Your task to perform on an android device: Search for "jbl flip 4" on ebay, select the first entry, and add it to the cart. Image 0: 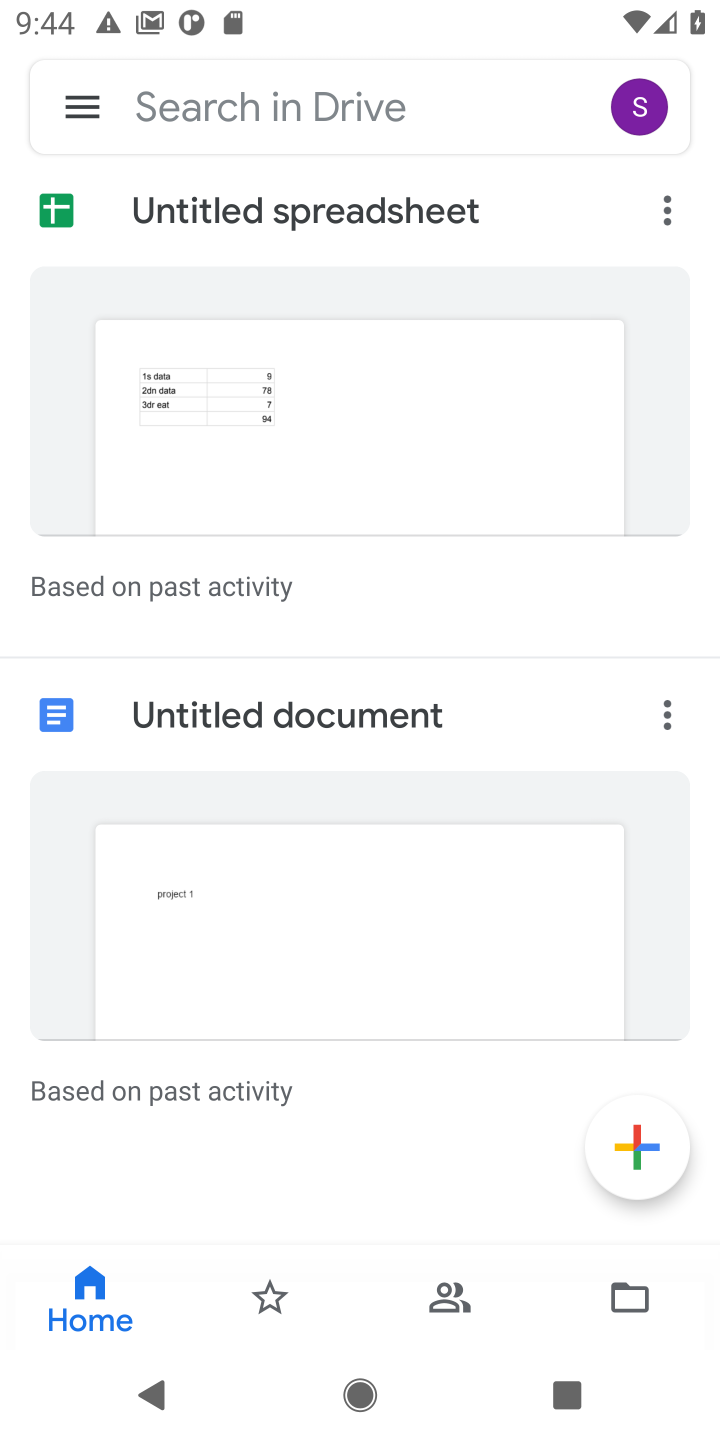
Step 0: press home button
Your task to perform on an android device: Search for "jbl flip 4" on ebay, select the first entry, and add it to the cart. Image 1: 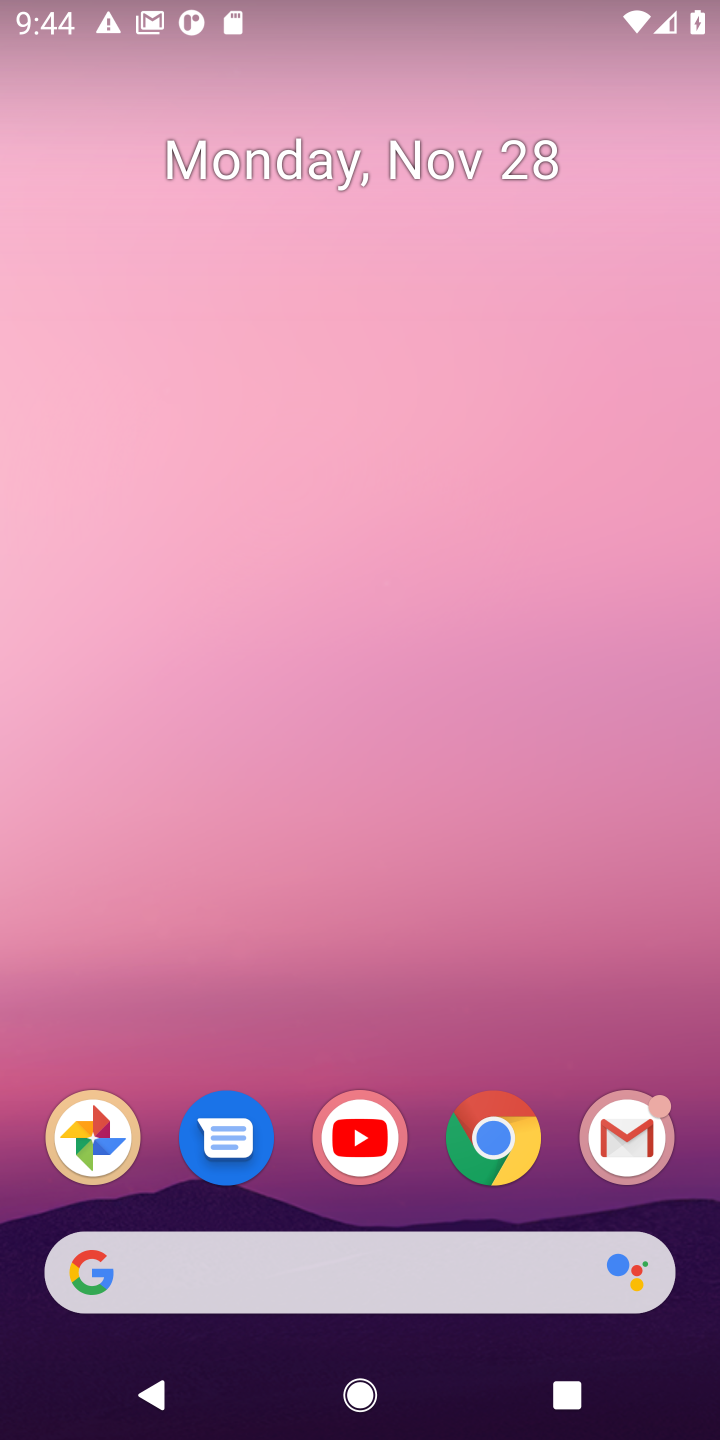
Step 1: click (492, 1140)
Your task to perform on an android device: Search for "jbl flip 4" on ebay, select the first entry, and add it to the cart. Image 2: 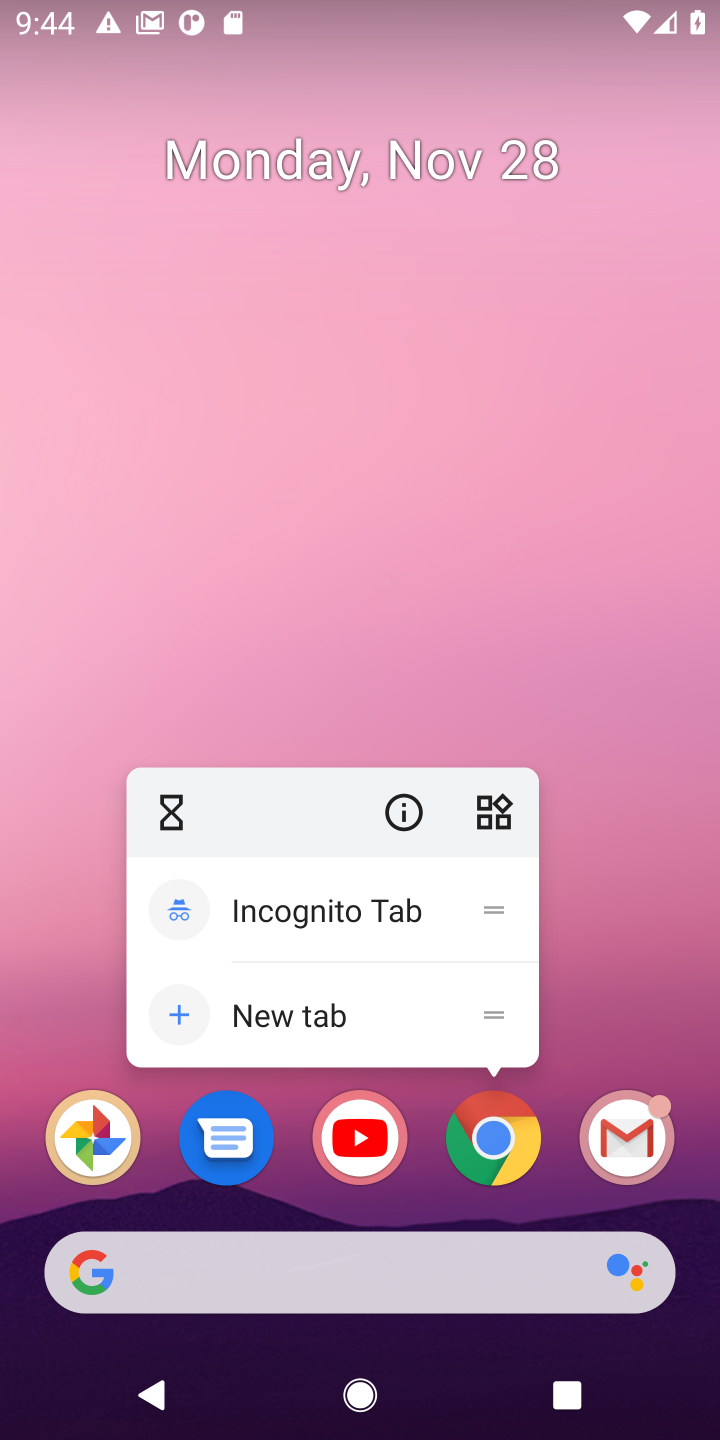
Step 2: click (492, 1140)
Your task to perform on an android device: Search for "jbl flip 4" on ebay, select the first entry, and add it to the cart. Image 3: 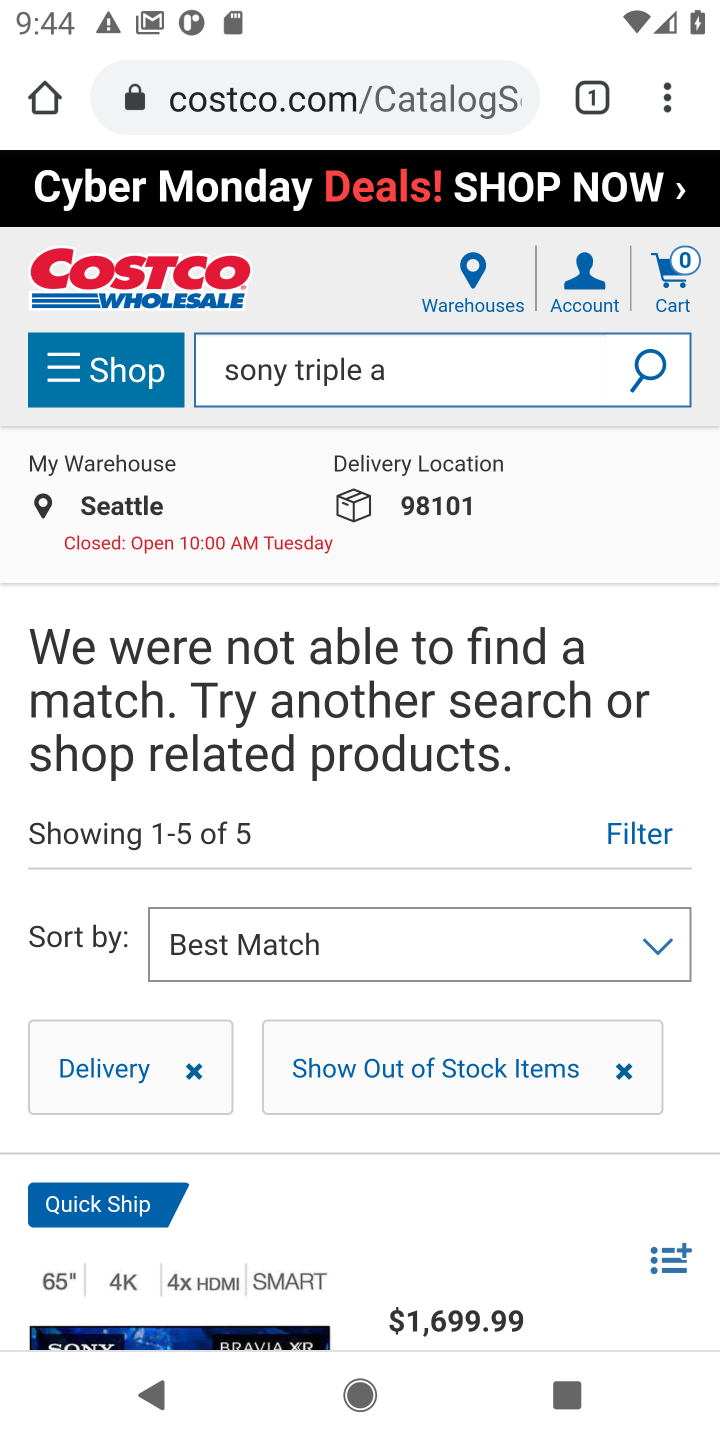
Step 3: click (276, 109)
Your task to perform on an android device: Search for "jbl flip 4" on ebay, select the first entry, and add it to the cart. Image 4: 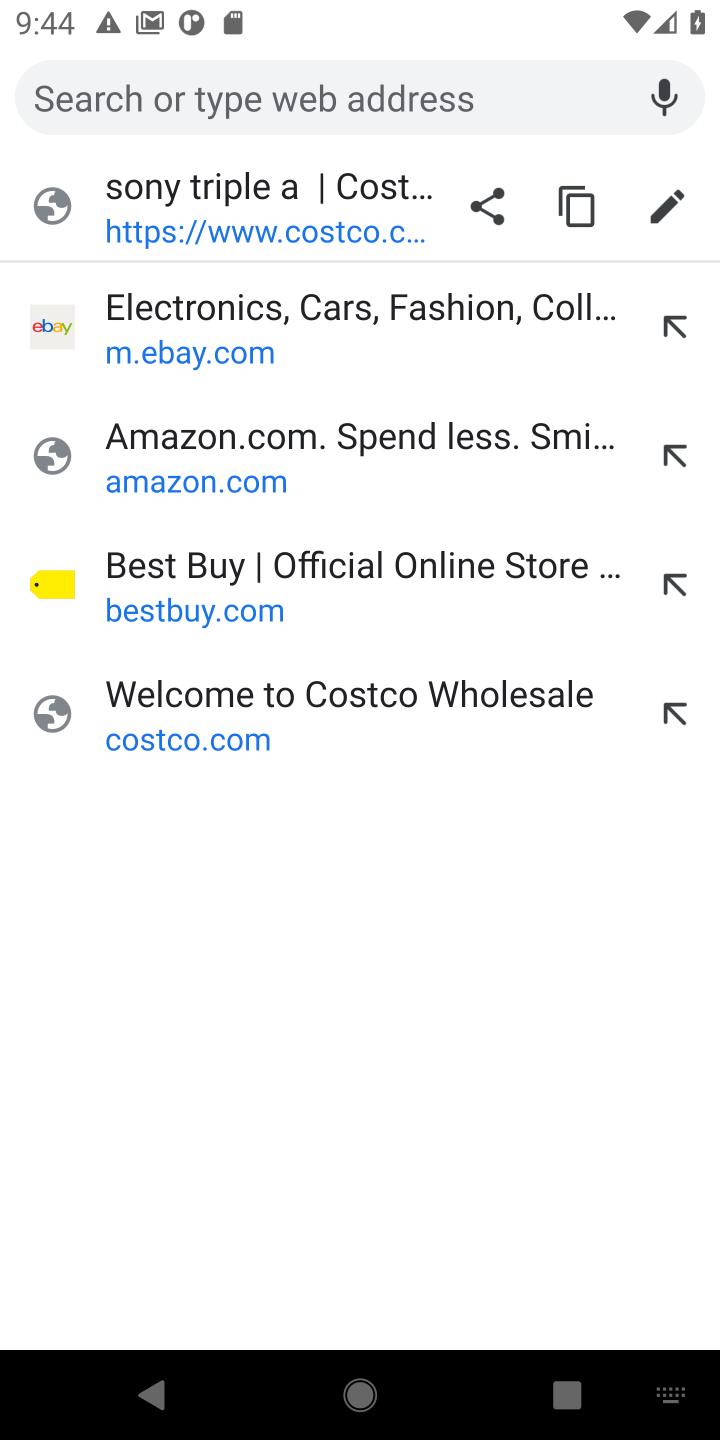
Step 4: click (177, 342)
Your task to perform on an android device: Search for "jbl flip 4" on ebay, select the first entry, and add it to the cart. Image 5: 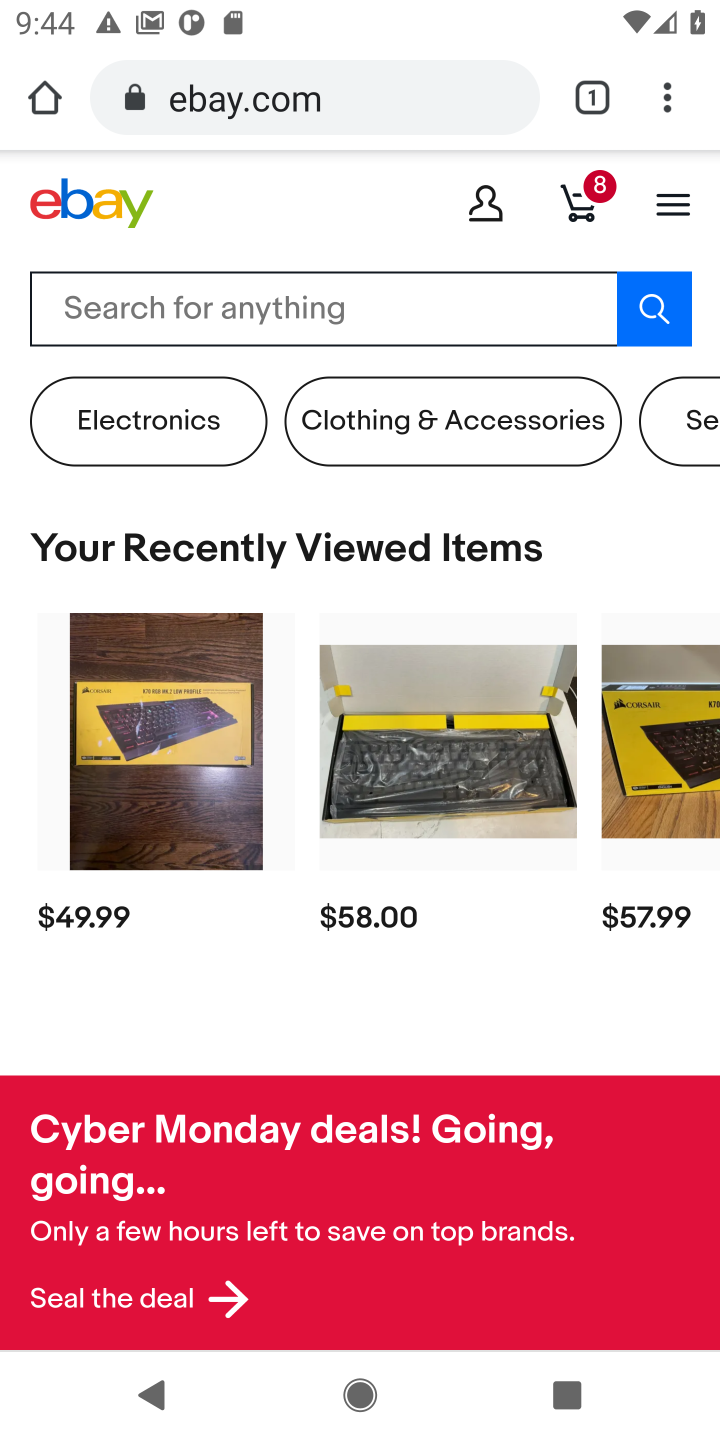
Step 5: click (171, 316)
Your task to perform on an android device: Search for "jbl flip 4" on ebay, select the first entry, and add it to the cart. Image 6: 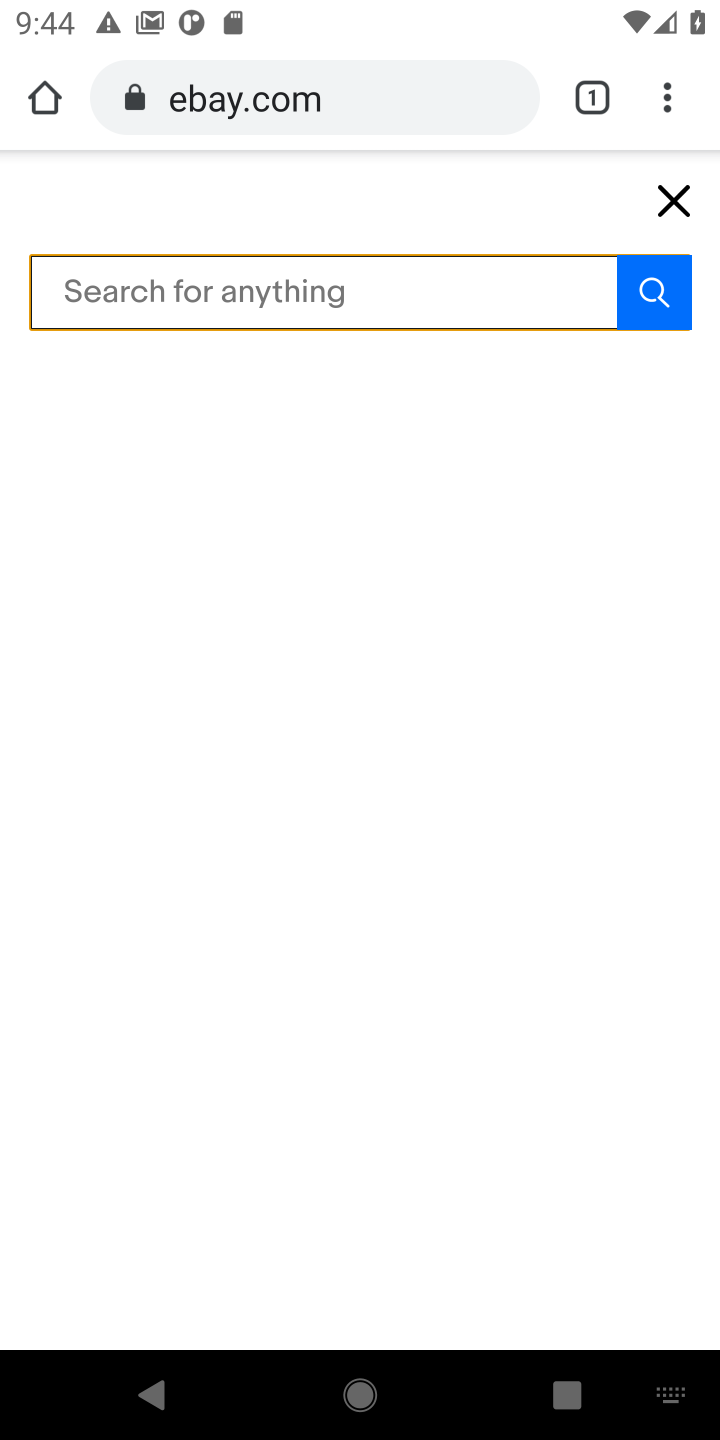
Step 6: type "jbl flip 4"
Your task to perform on an android device: Search for "jbl flip 4" on ebay, select the first entry, and add it to the cart. Image 7: 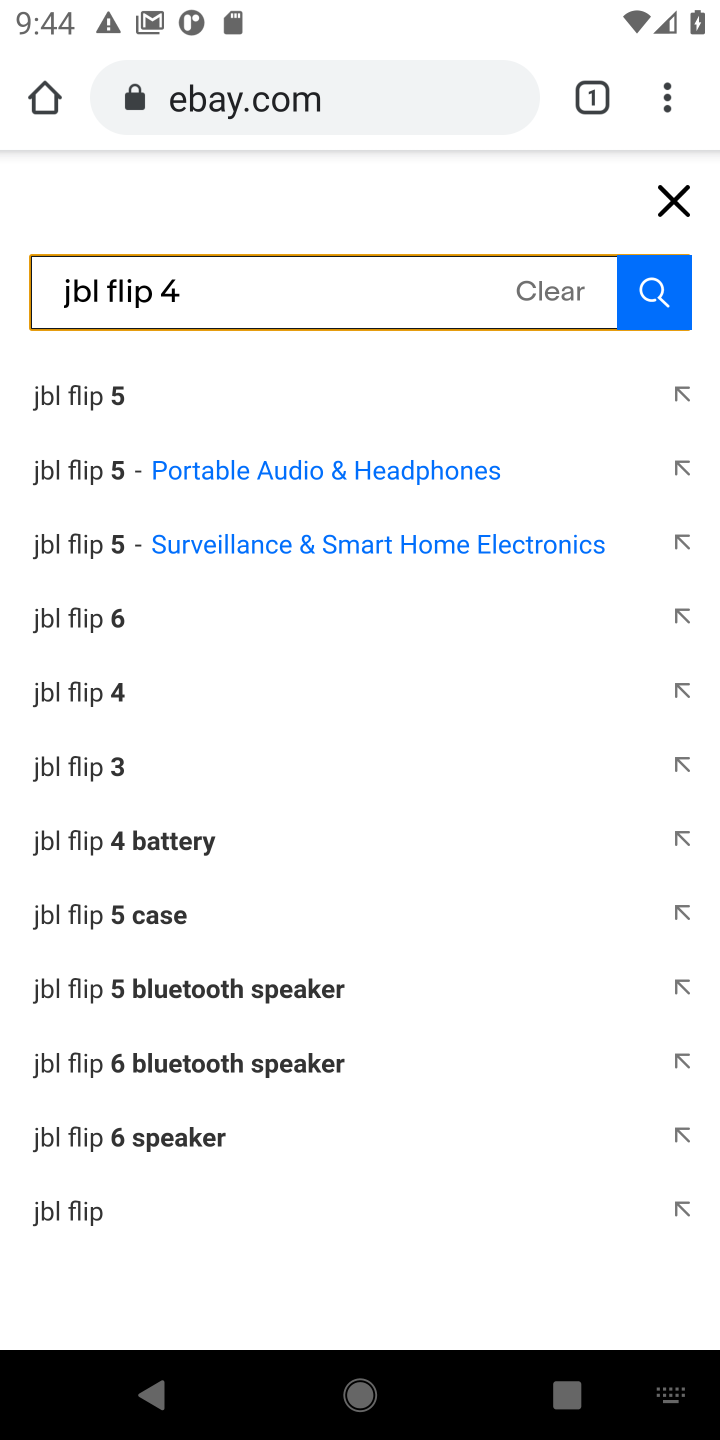
Step 7: click (61, 686)
Your task to perform on an android device: Search for "jbl flip 4" on ebay, select the first entry, and add it to the cart. Image 8: 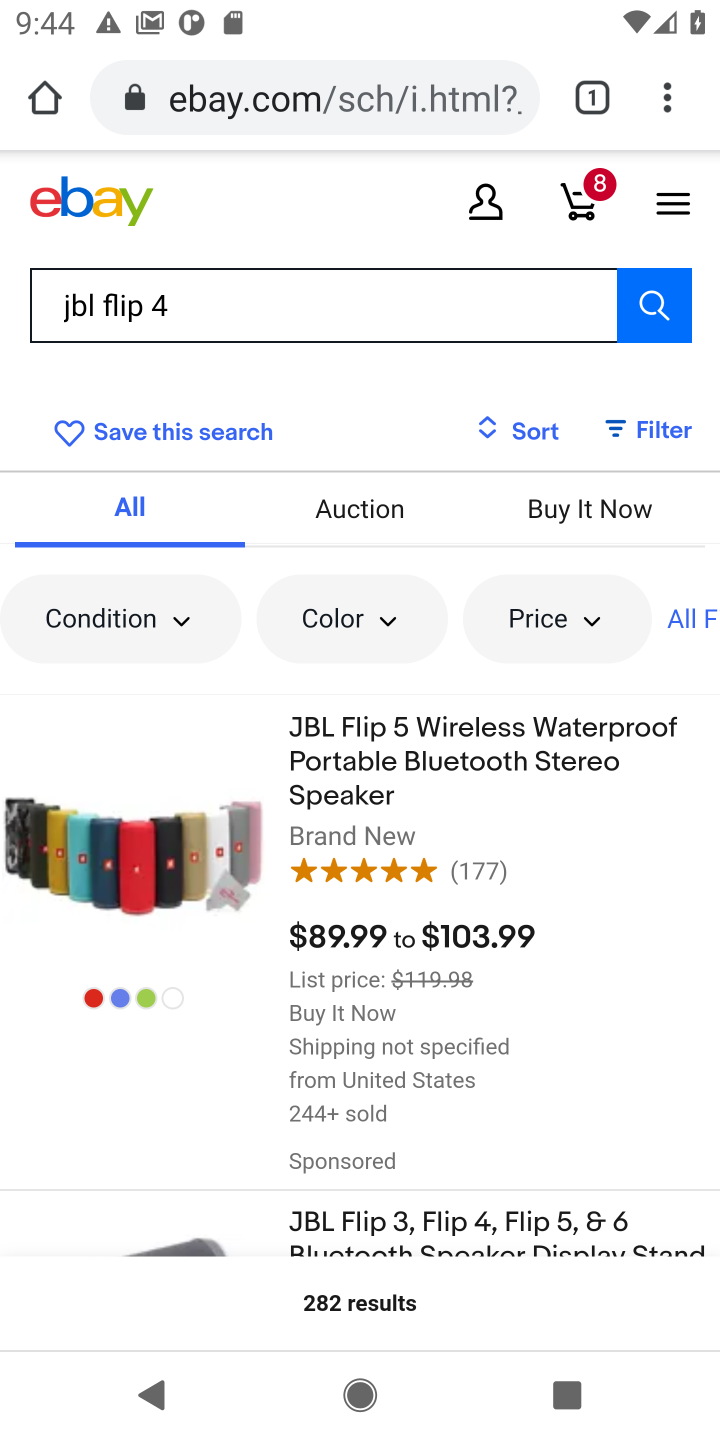
Step 8: task complete